Your task to perform on an android device: open chrome and create a bookmark for the current page Image 0: 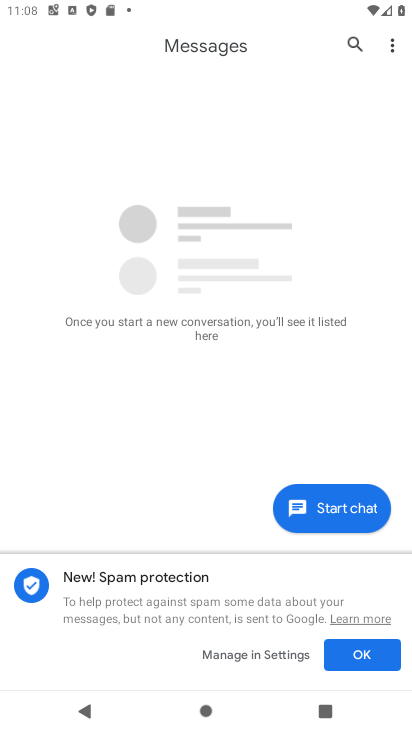
Step 0: press home button
Your task to perform on an android device: open chrome and create a bookmark for the current page Image 1: 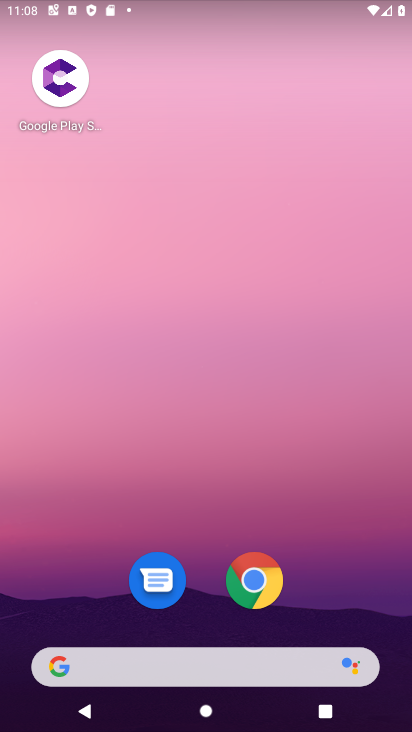
Step 1: drag from (301, 659) to (336, 120)
Your task to perform on an android device: open chrome and create a bookmark for the current page Image 2: 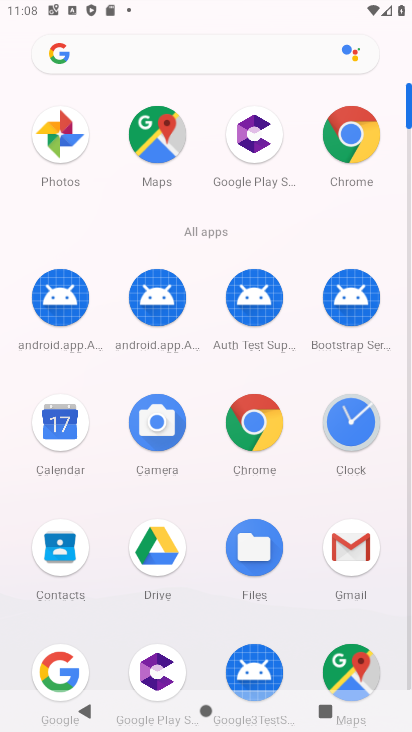
Step 2: click (262, 436)
Your task to perform on an android device: open chrome and create a bookmark for the current page Image 3: 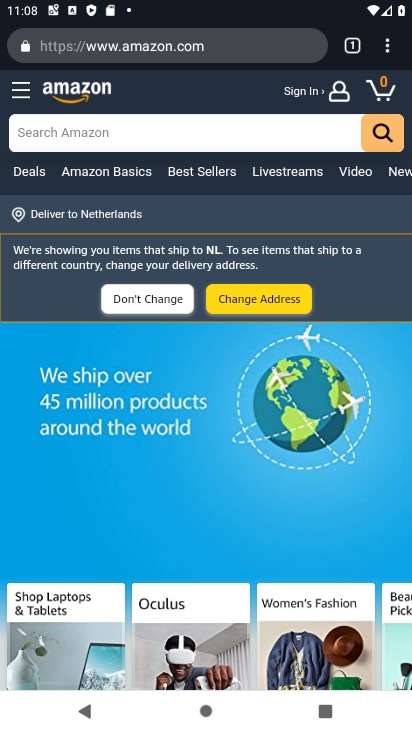
Step 3: click (387, 53)
Your task to perform on an android device: open chrome and create a bookmark for the current page Image 4: 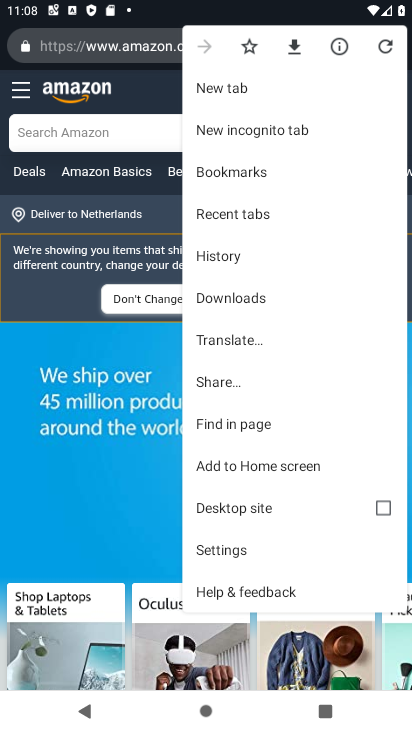
Step 4: click (253, 53)
Your task to perform on an android device: open chrome and create a bookmark for the current page Image 5: 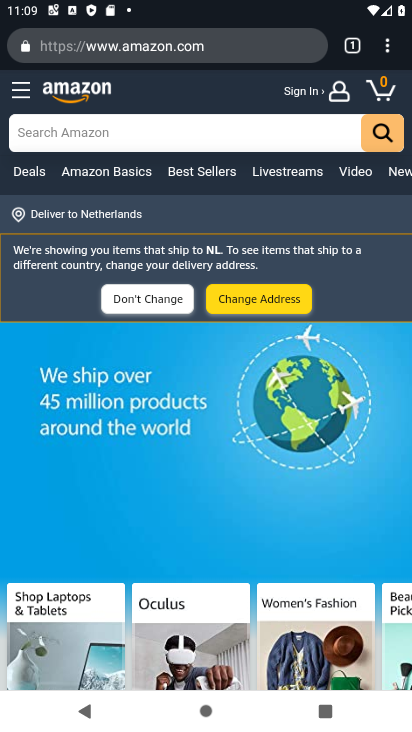
Step 5: task complete